Your task to perform on an android device: turn off priority inbox in the gmail app Image 0: 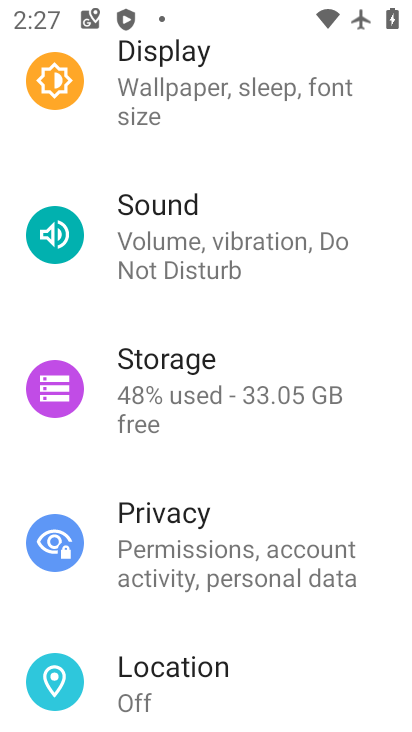
Step 0: press home button
Your task to perform on an android device: turn off priority inbox in the gmail app Image 1: 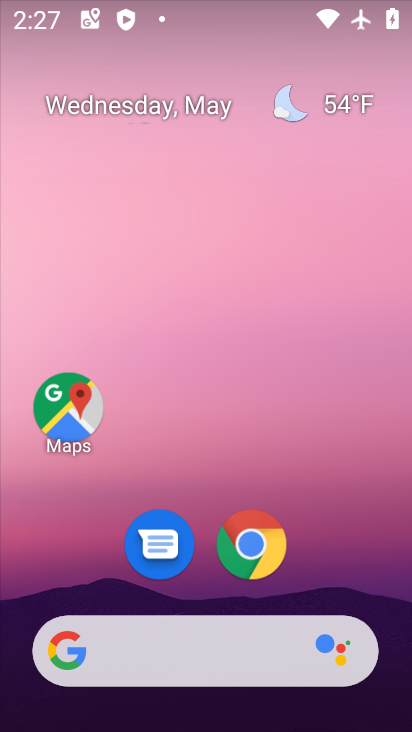
Step 1: drag from (359, 523) to (345, 146)
Your task to perform on an android device: turn off priority inbox in the gmail app Image 2: 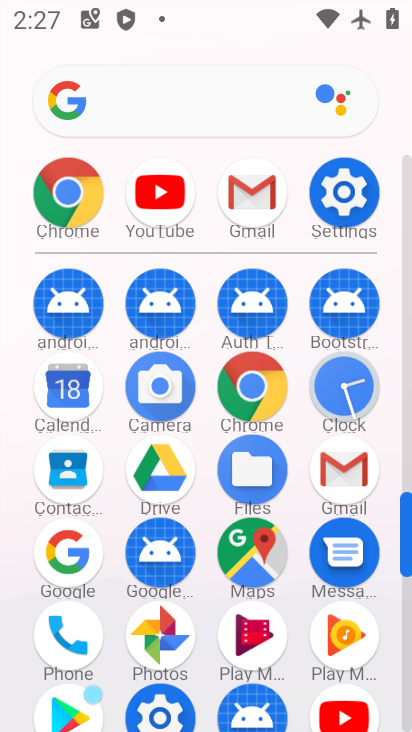
Step 2: click (237, 212)
Your task to perform on an android device: turn off priority inbox in the gmail app Image 3: 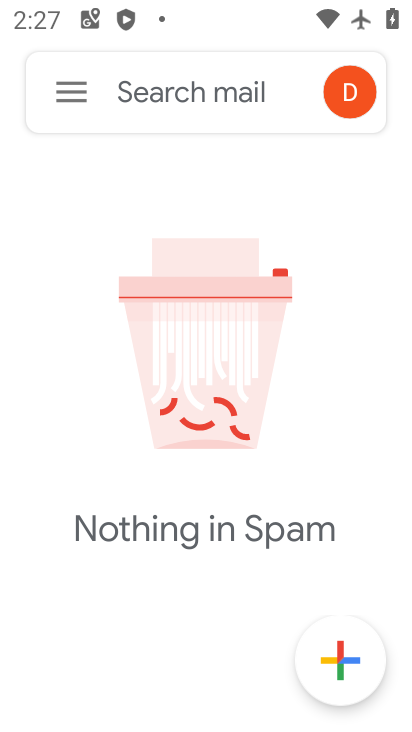
Step 3: click (76, 91)
Your task to perform on an android device: turn off priority inbox in the gmail app Image 4: 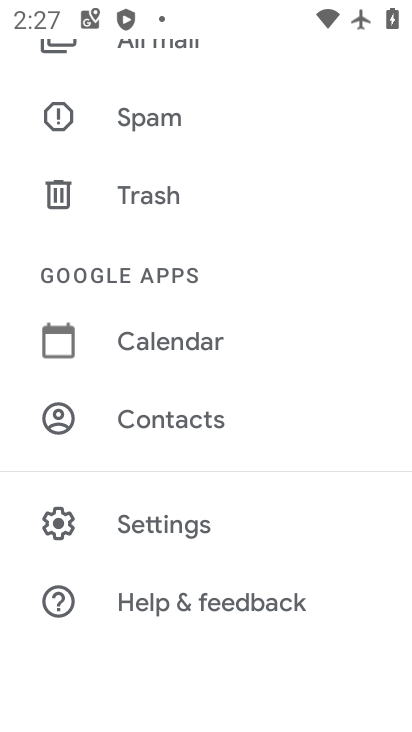
Step 4: click (125, 526)
Your task to perform on an android device: turn off priority inbox in the gmail app Image 5: 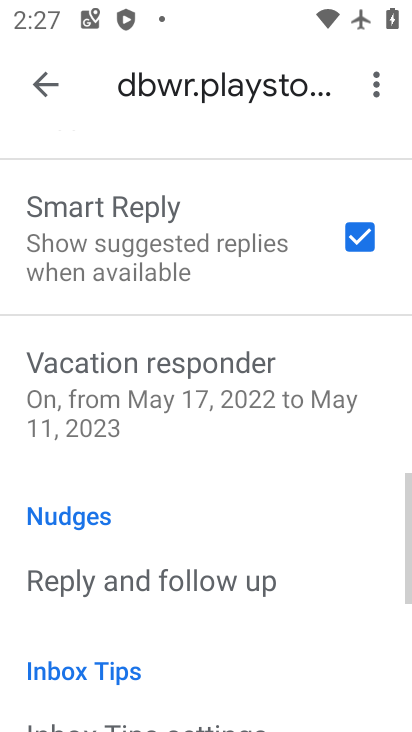
Step 5: drag from (127, 298) to (140, 713)
Your task to perform on an android device: turn off priority inbox in the gmail app Image 6: 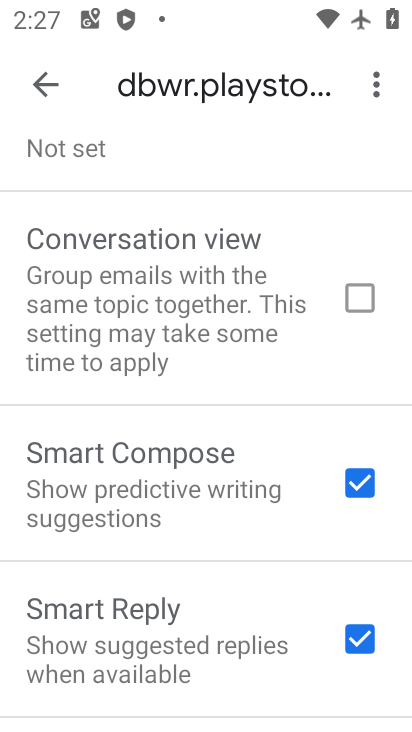
Step 6: drag from (173, 243) to (343, 500)
Your task to perform on an android device: turn off priority inbox in the gmail app Image 7: 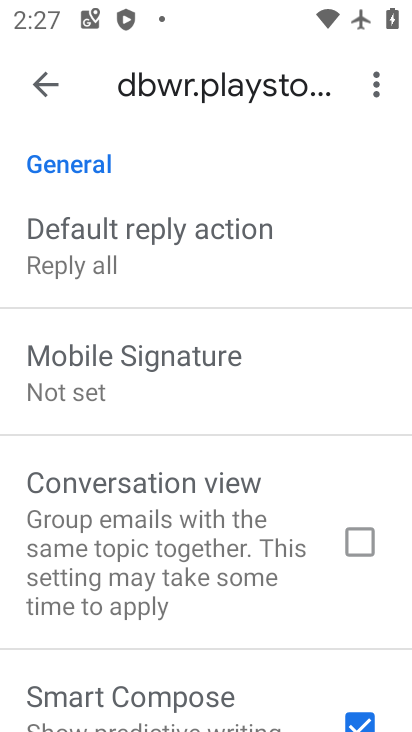
Step 7: drag from (240, 214) to (175, 677)
Your task to perform on an android device: turn off priority inbox in the gmail app Image 8: 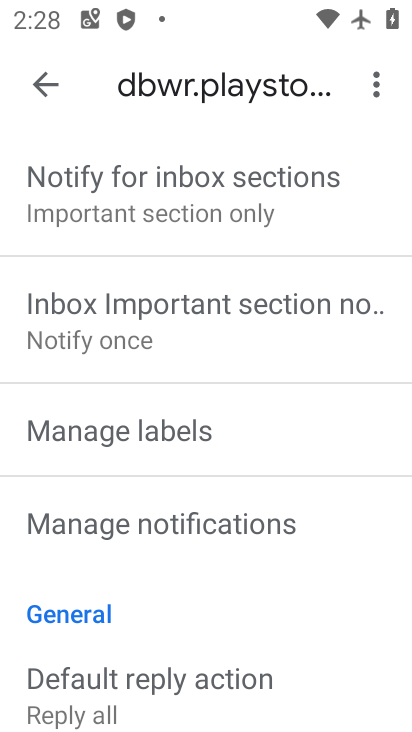
Step 8: drag from (240, 219) to (165, 610)
Your task to perform on an android device: turn off priority inbox in the gmail app Image 9: 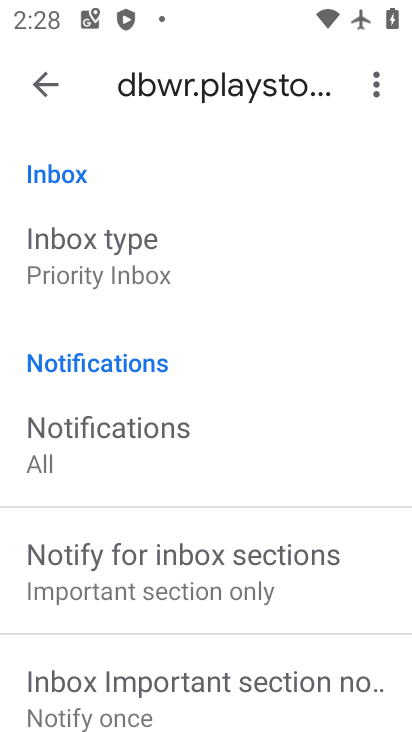
Step 9: click (189, 241)
Your task to perform on an android device: turn off priority inbox in the gmail app Image 10: 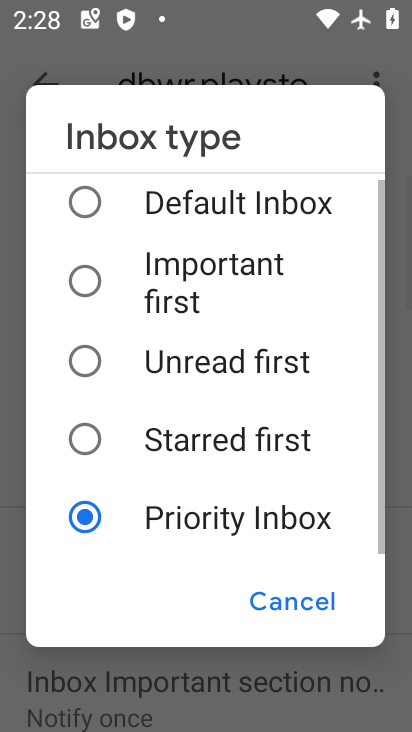
Step 10: click (180, 220)
Your task to perform on an android device: turn off priority inbox in the gmail app Image 11: 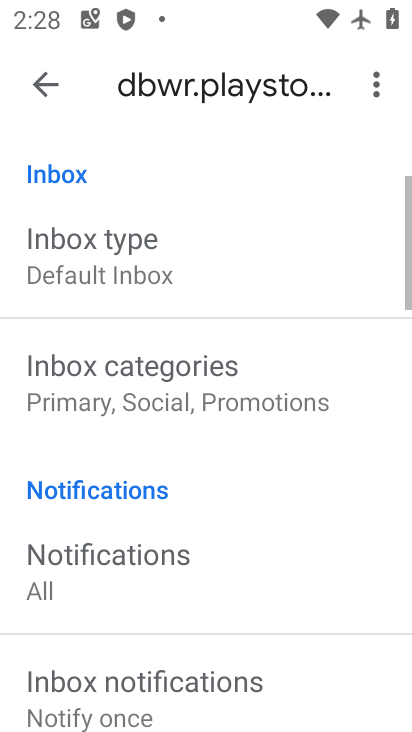
Step 11: task complete